Your task to perform on an android device: Open maps Image 0: 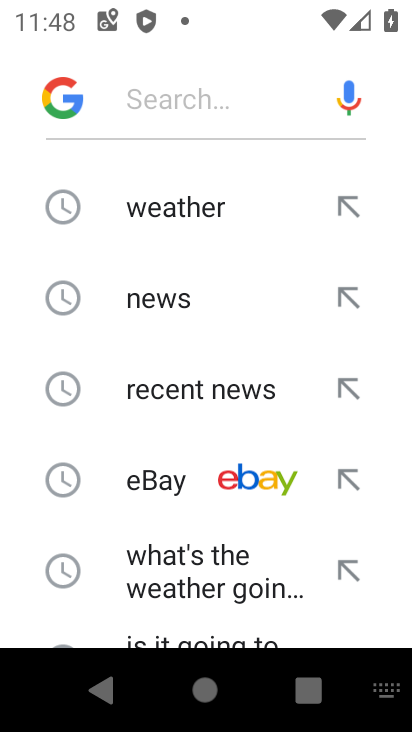
Step 0: press home button
Your task to perform on an android device: Open maps Image 1: 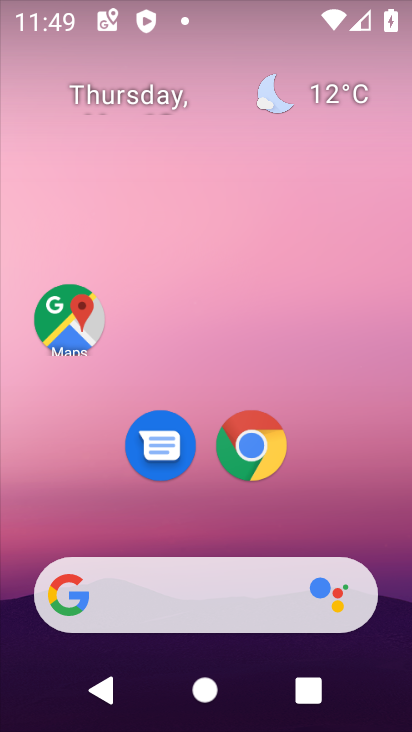
Step 1: click (77, 331)
Your task to perform on an android device: Open maps Image 2: 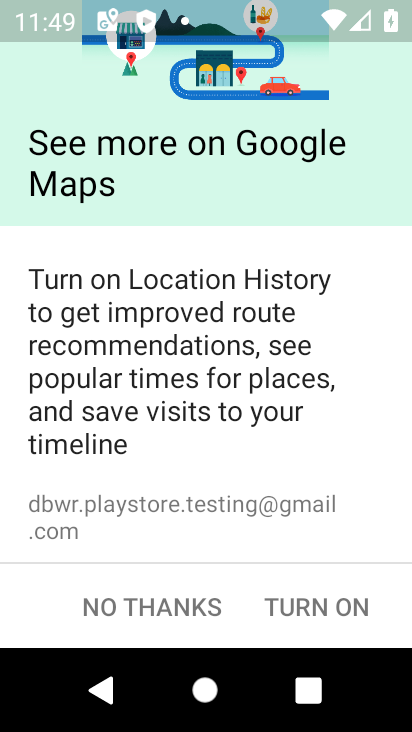
Step 2: click (311, 615)
Your task to perform on an android device: Open maps Image 3: 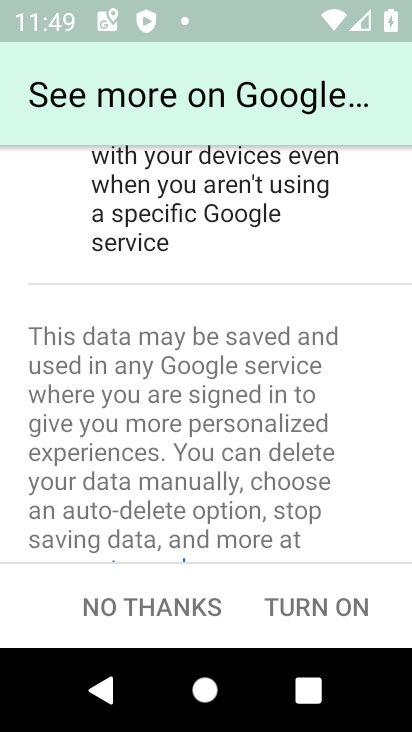
Step 3: click (311, 615)
Your task to perform on an android device: Open maps Image 4: 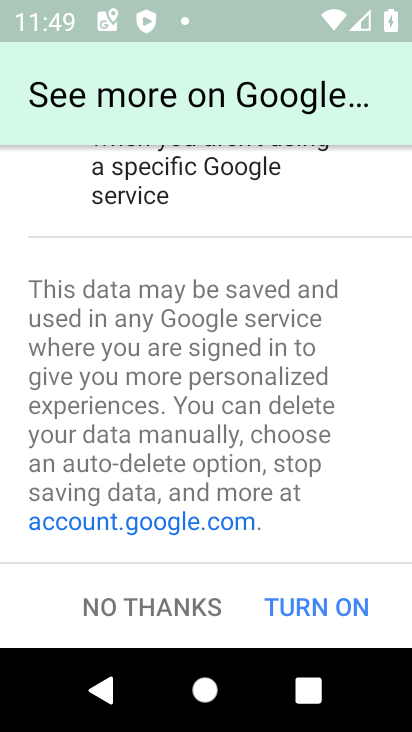
Step 4: click (311, 615)
Your task to perform on an android device: Open maps Image 5: 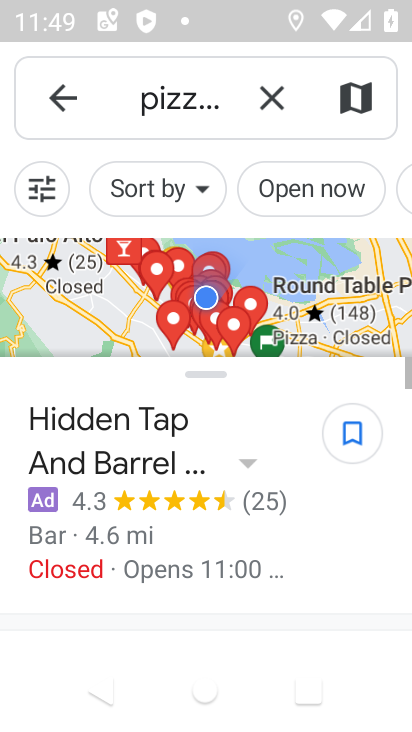
Step 5: task complete